Your task to perform on an android device: Go to notification settings Image 0: 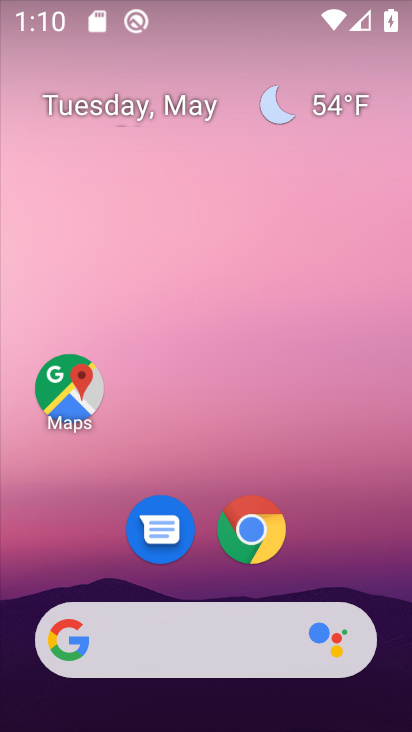
Step 0: drag from (324, 527) to (280, 167)
Your task to perform on an android device: Go to notification settings Image 1: 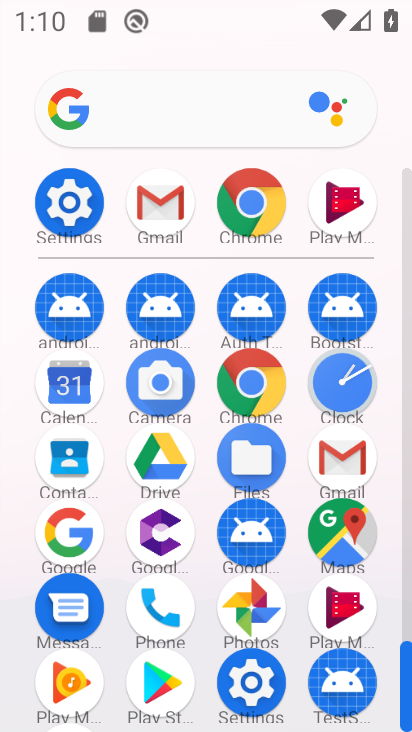
Step 1: click (59, 194)
Your task to perform on an android device: Go to notification settings Image 2: 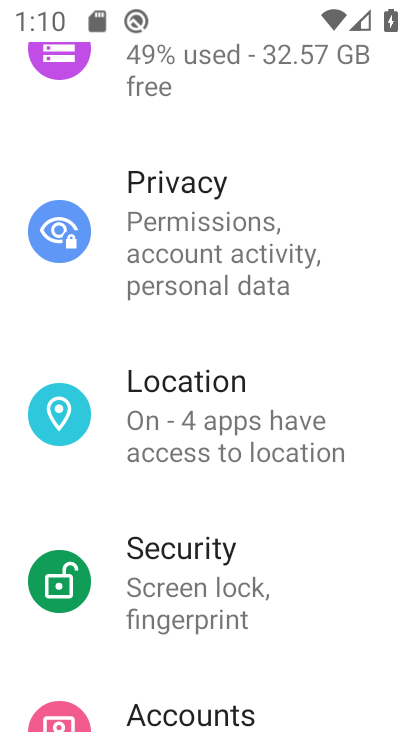
Step 2: drag from (260, 227) to (241, 633)
Your task to perform on an android device: Go to notification settings Image 3: 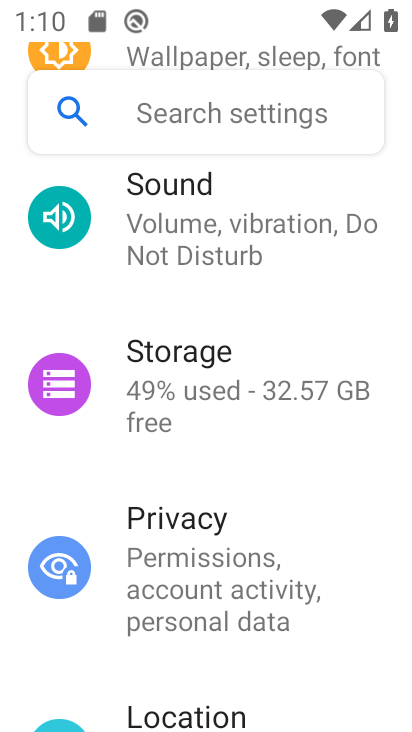
Step 3: drag from (236, 262) to (234, 540)
Your task to perform on an android device: Go to notification settings Image 4: 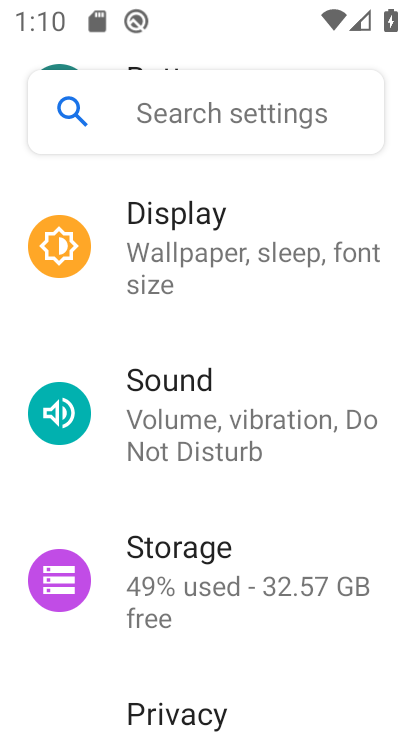
Step 4: drag from (233, 210) to (216, 593)
Your task to perform on an android device: Go to notification settings Image 5: 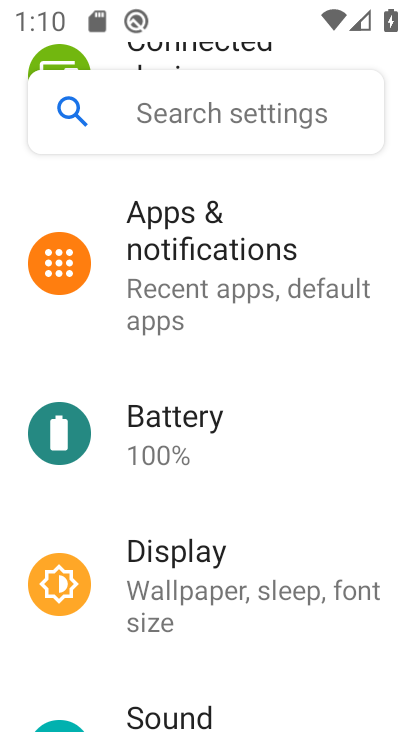
Step 5: click (253, 224)
Your task to perform on an android device: Go to notification settings Image 6: 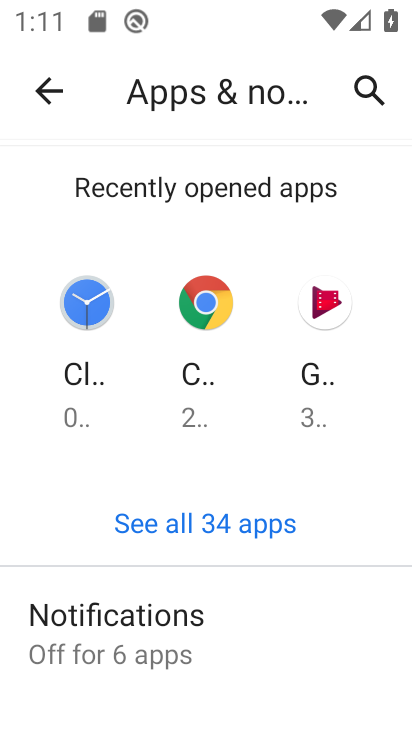
Step 6: drag from (220, 588) to (242, 304)
Your task to perform on an android device: Go to notification settings Image 7: 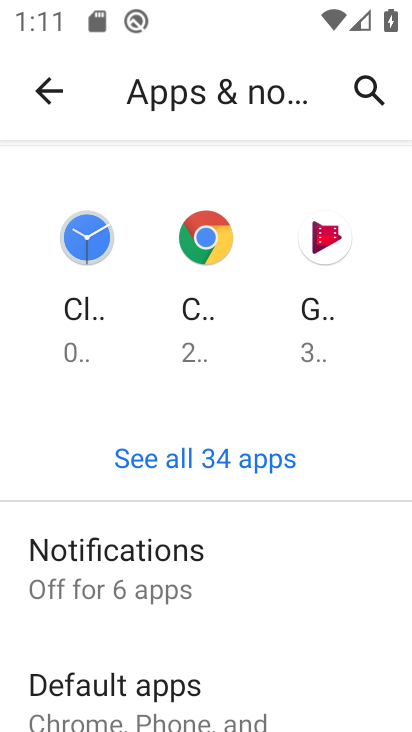
Step 7: click (165, 554)
Your task to perform on an android device: Go to notification settings Image 8: 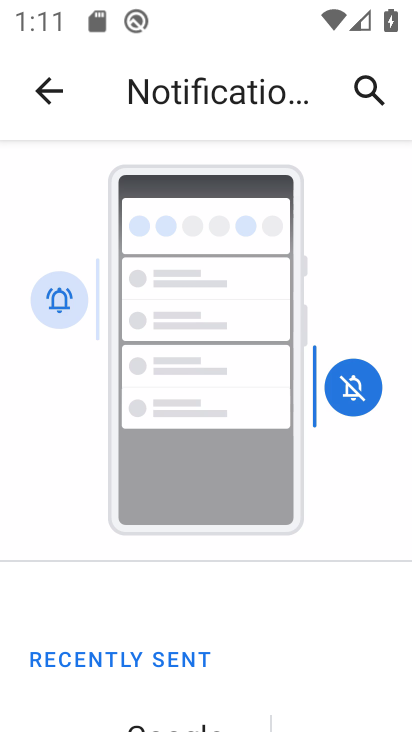
Step 8: task complete